Your task to perform on an android device: Open Google Maps and go to "Timeline" Image 0: 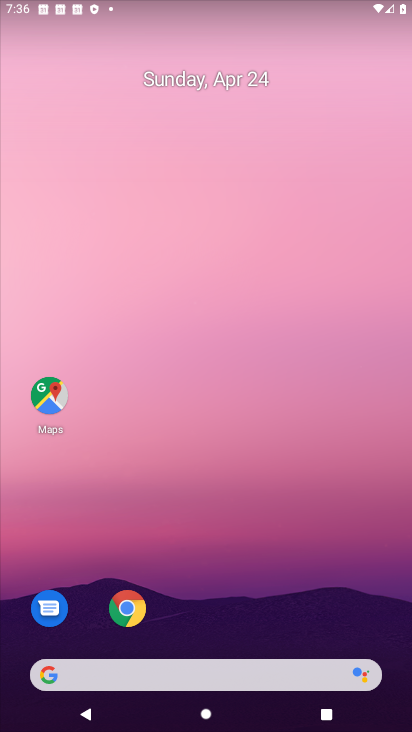
Step 0: drag from (278, 621) to (360, 125)
Your task to perform on an android device: Open Google Maps and go to "Timeline" Image 1: 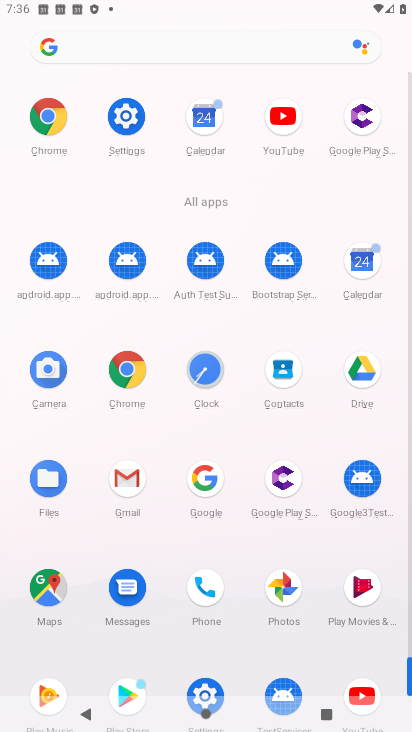
Step 1: click (44, 593)
Your task to perform on an android device: Open Google Maps and go to "Timeline" Image 2: 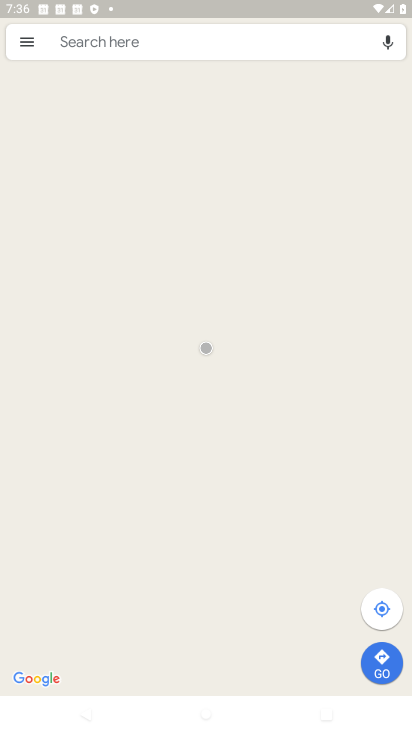
Step 2: click (32, 46)
Your task to perform on an android device: Open Google Maps and go to "Timeline" Image 3: 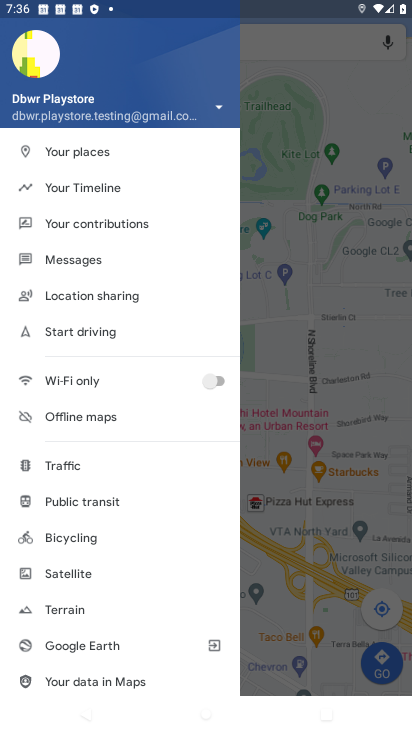
Step 3: click (101, 184)
Your task to perform on an android device: Open Google Maps and go to "Timeline" Image 4: 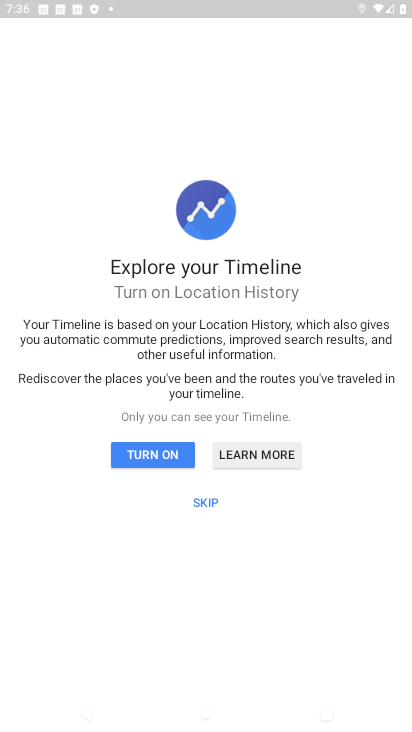
Step 4: click (205, 500)
Your task to perform on an android device: Open Google Maps and go to "Timeline" Image 5: 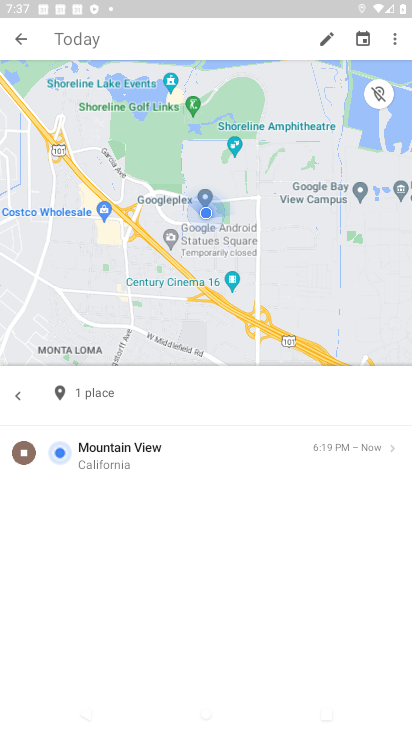
Step 5: task complete